Your task to perform on an android device: What's on my calendar today? Image 0: 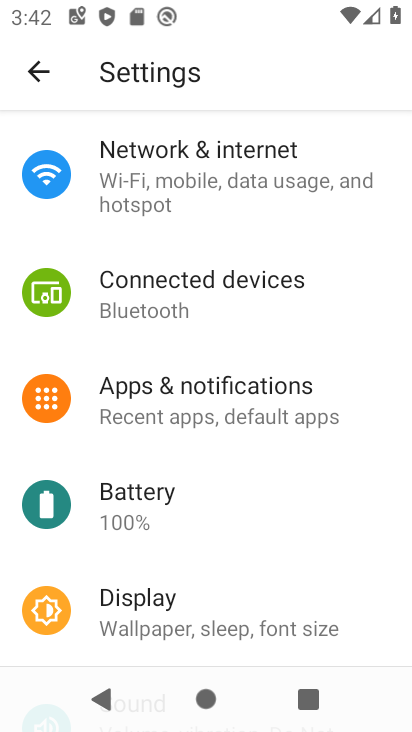
Step 0: press home button
Your task to perform on an android device: What's on my calendar today? Image 1: 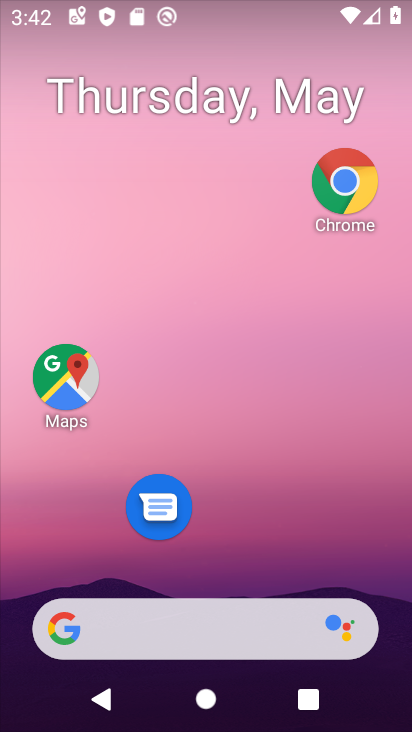
Step 1: drag from (299, 486) to (303, 88)
Your task to perform on an android device: What's on my calendar today? Image 2: 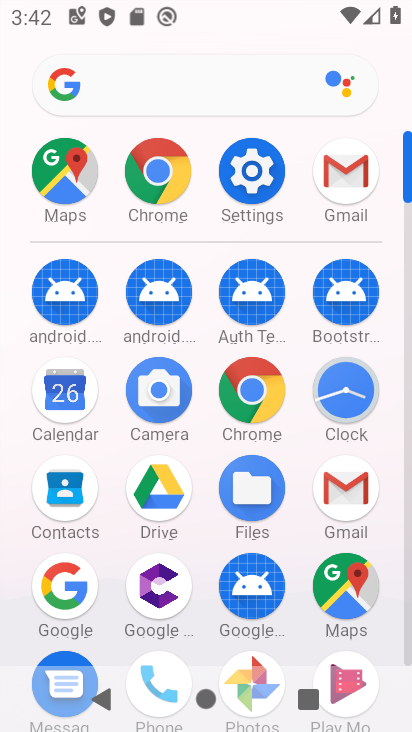
Step 2: click (57, 387)
Your task to perform on an android device: What's on my calendar today? Image 3: 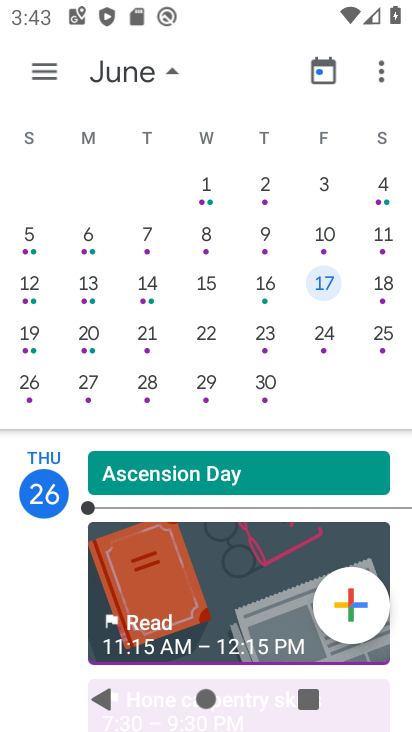
Step 3: drag from (151, 194) to (368, 212)
Your task to perform on an android device: What's on my calendar today? Image 4: 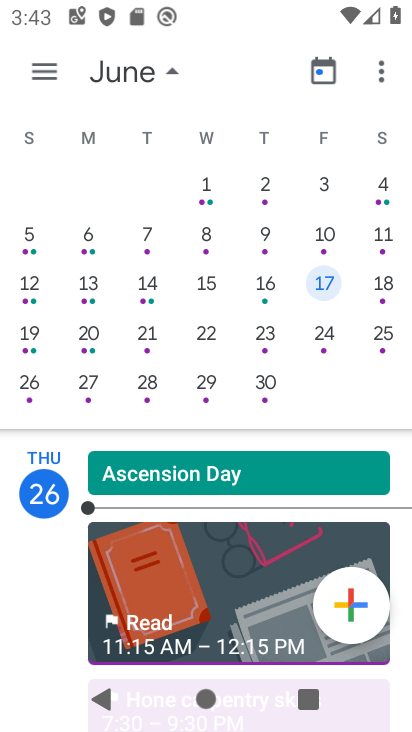
Step 4: drag from (247, 287) to (357, 285)
Your task to perform on an android device: What's on my calendar today? Image 5: 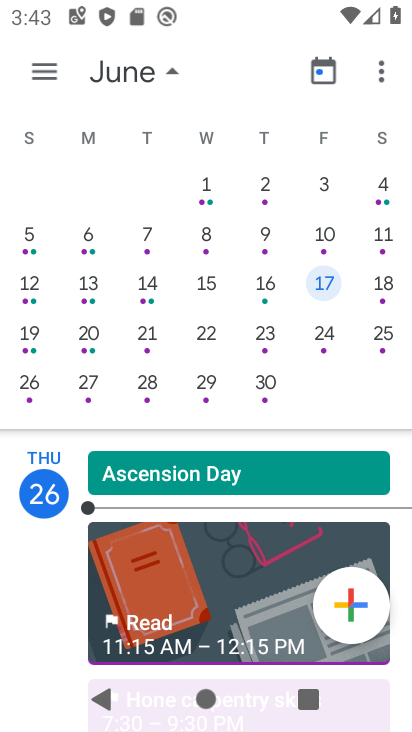
Step 5: drag from (56, 273) to (375, 274)
Your task to perform on an android device: What's on my calendar today? Image 6: 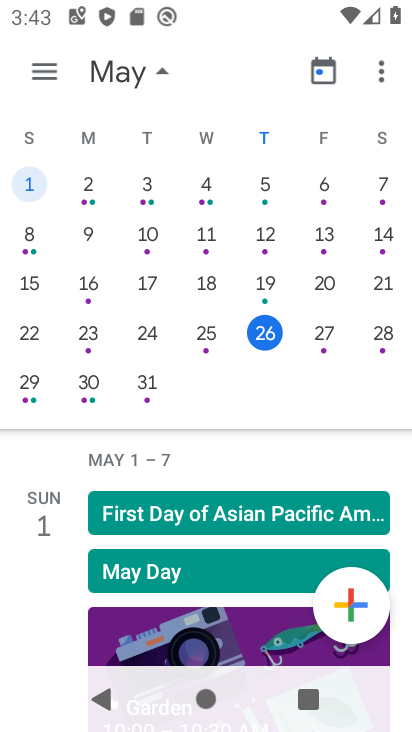
Step 6: click (257, 328)
Your task to perform on an android device: What's on my calendar today? Image 7: 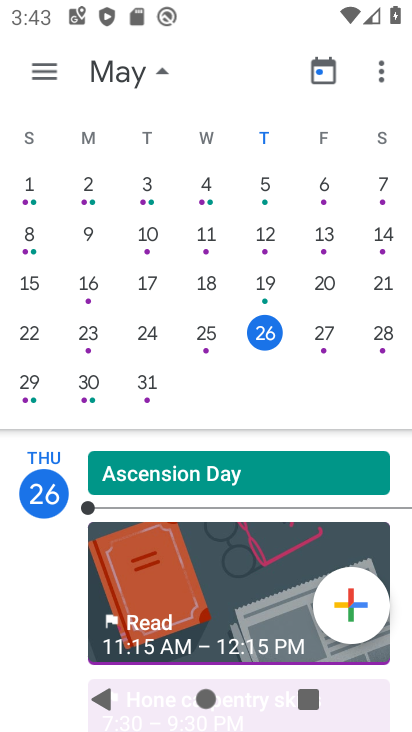
Step 7: task complete